Your task to perform on an android device: Go to Google maps Image 0: 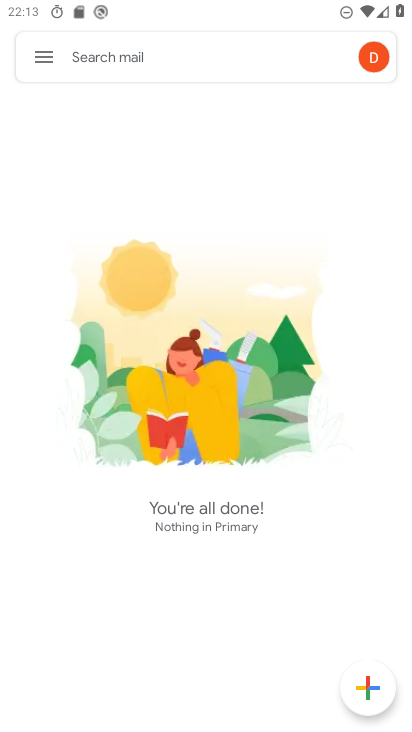
Step 0: press home button
Your task to perform on an android device: Go to Google maps Image 1: 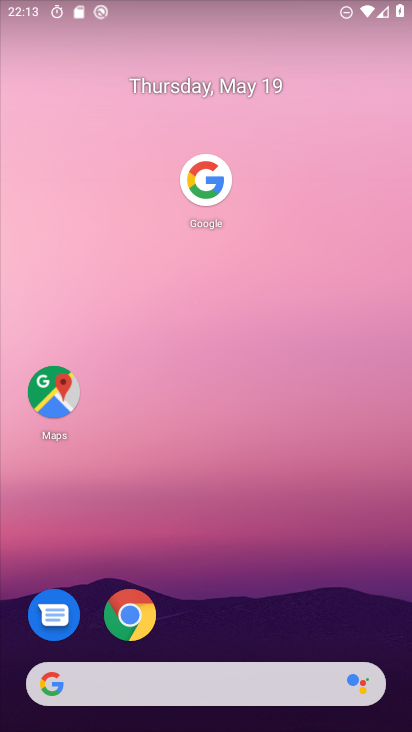
Step 1: click (55, 394)
Your task to perform on an android device: Go to Google maps Image 2: 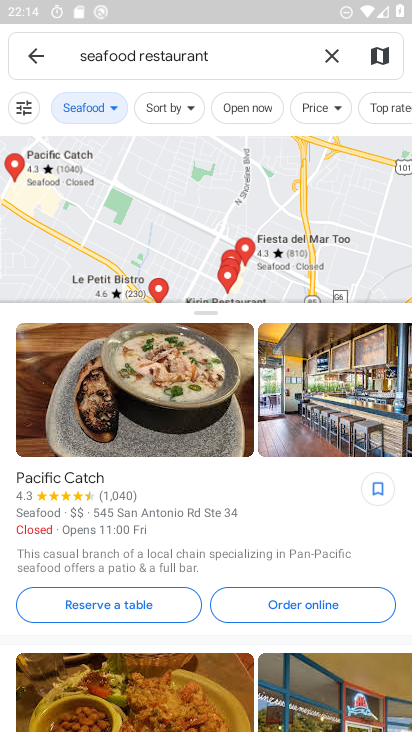
Step 2: task complete